Your task to perform on an android device: refresh tabs in the chrome app Image 0: 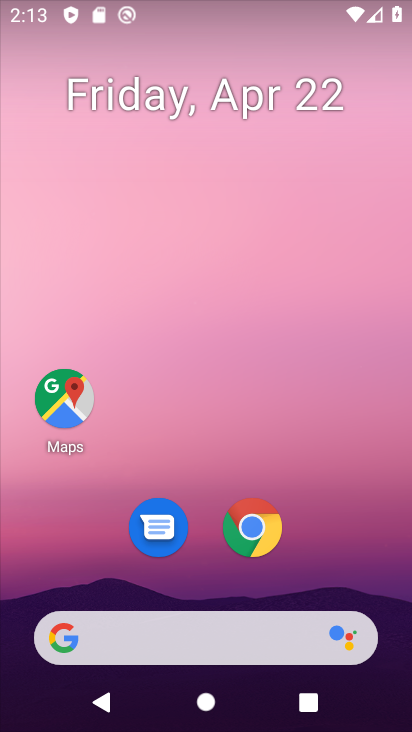
Step 0: drag from (349, 584) to (353, 141)
Your task to perform on an android device: refresh tabs in the chrome app Image 1: 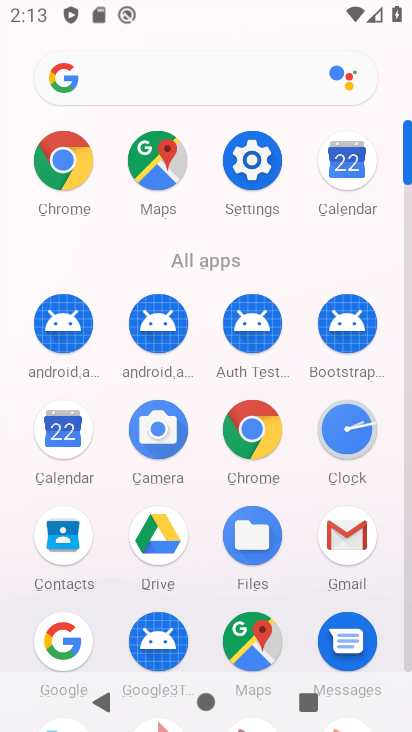
Step 1: click (263, 425)
Your task to perform on an android device: refresh tabs in the chrome app Image 2: 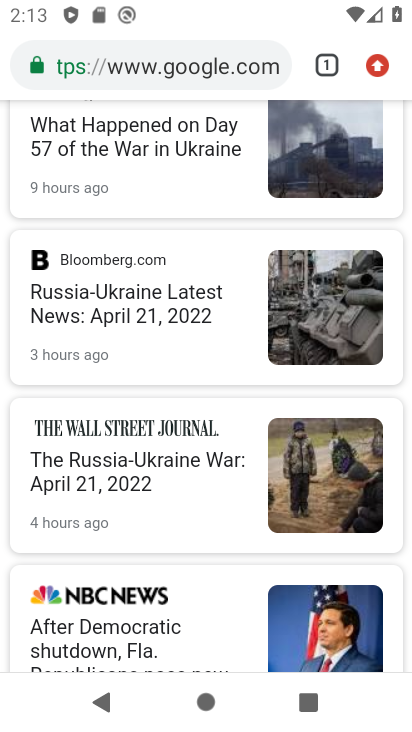
Step 2: drag from (230, 184) to (334, 720)
Your task to perform on an android device: refresh tabs in the chrome app Image 3: 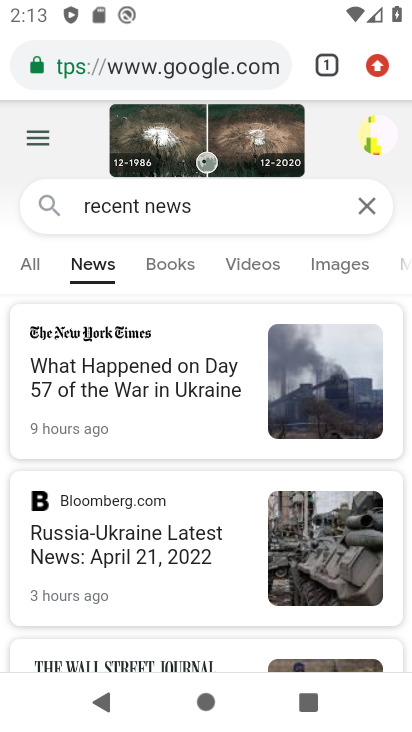
Step 3: click (376, 55)
Your task to perform on an android device: refresh tabs in the chrome app Image 4: 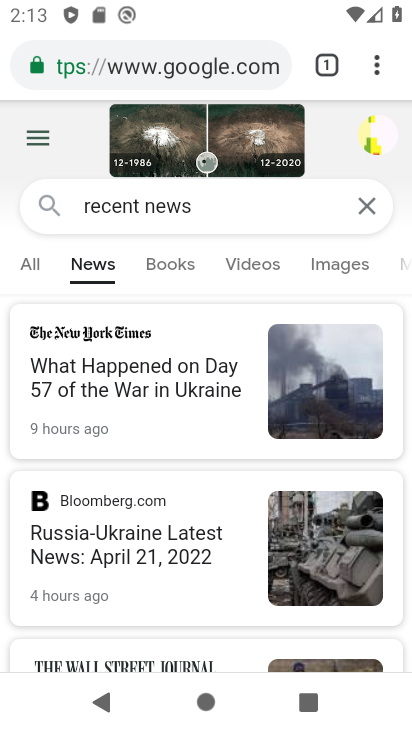
Step 4: task complete